Your task to perform on an android device: allow cookies in the chrome app Image 0: 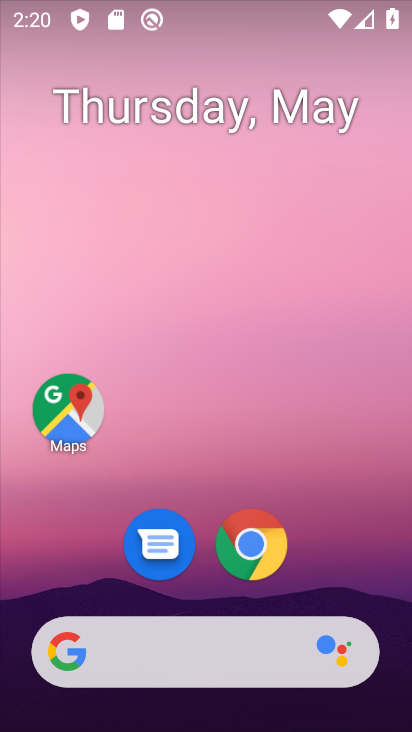
Step 0: click (264, 527)
Your task to perform on an android device: allow cookies in the chrome app Image 1: 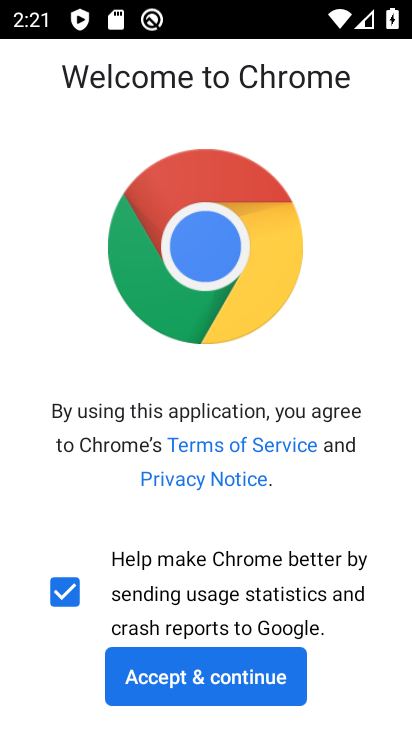
Step 1: click (241, 682)
Your task to perform on an android device: allow cookies in the chrome app Image 2: 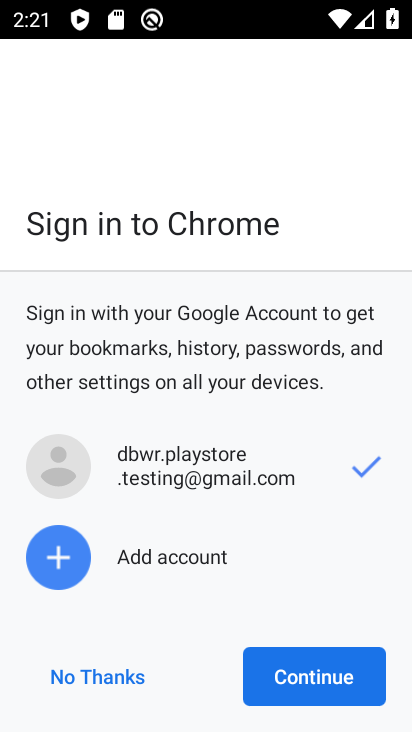
Step 2: click (358, 679)
Your task to perform on an android device: allow cookies in the chrome app Image 3: 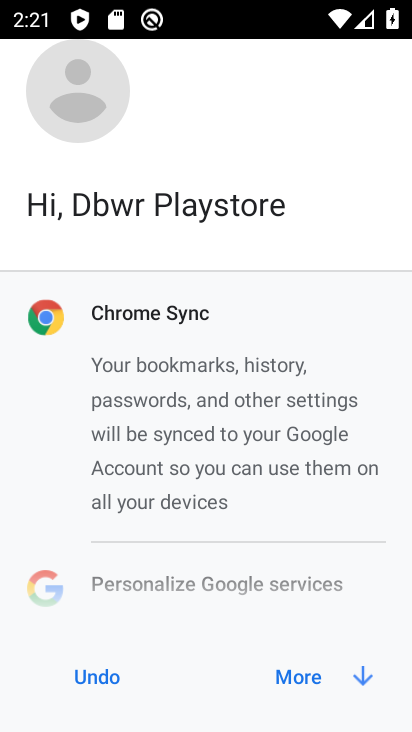
Step 3: click (296, 685)
Your task to perform on an android device: allow cookies in the chrome app Image 4: 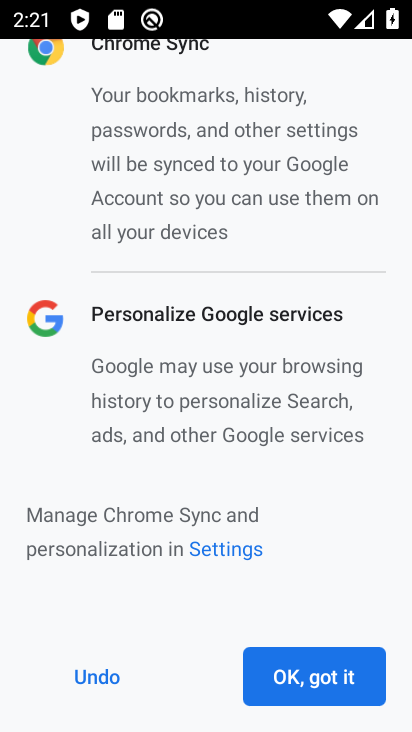
Step 4: click (303, 682)
Your task to perform on an android device: allow cookies in the chrome app Image 5: 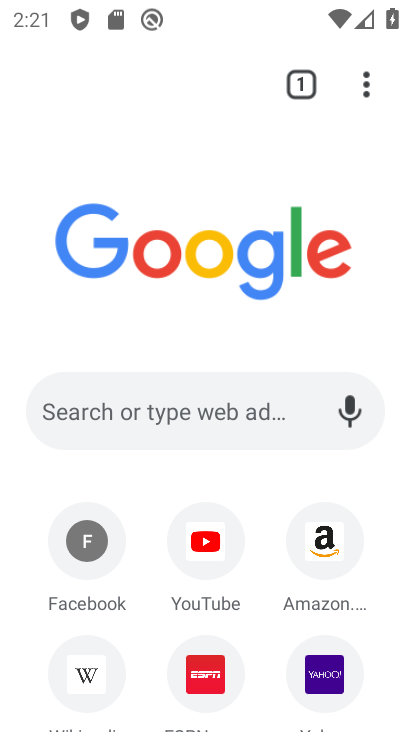
Step 5: click (371, 88)
Your task to perform on an android device: allow cookies in the chrome app Image 6: 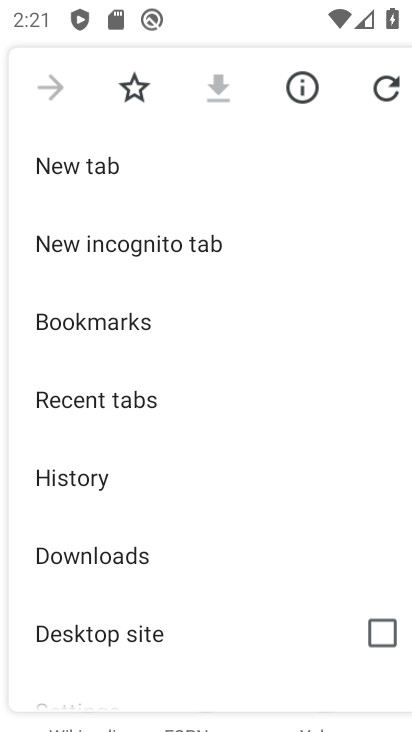
Step 6: drag from (130, 612) to (172, 183)
Your task to perform on an android device: allow cookies in the chrome app Image 7: 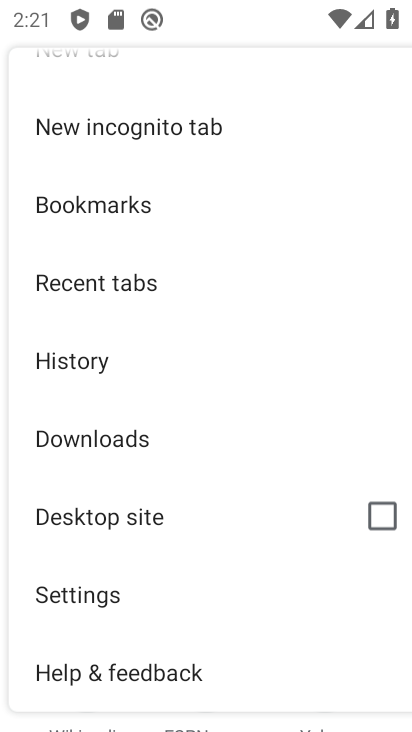
Step 7: click (99, 602)
Your task to perform on an android device: allow cookies in the chrome app Image 8: 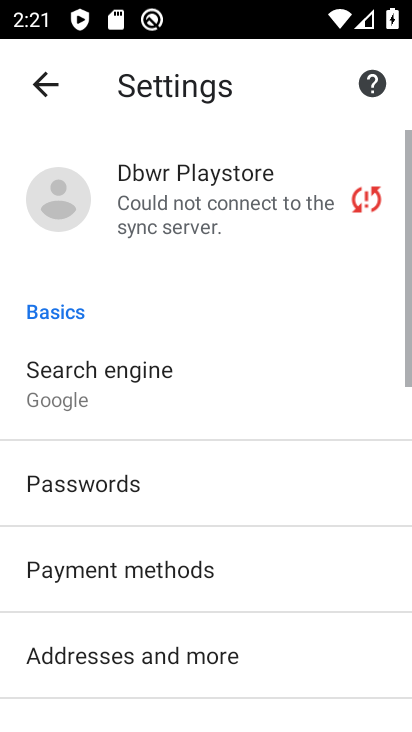
Step 8: drag from (221, 602) to (92, 126)
Your task to perform on an android device: allow cookies in the chrome app Image 9: 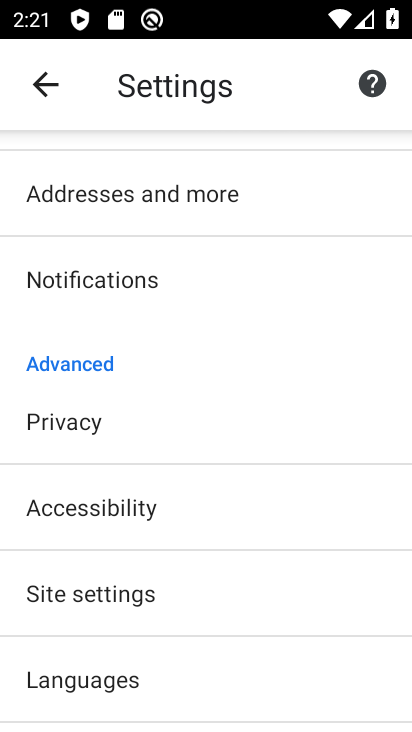
Step 9: click (97, 602)
Your task to perform on an android device: allow cookies in the chrome app Image 10: 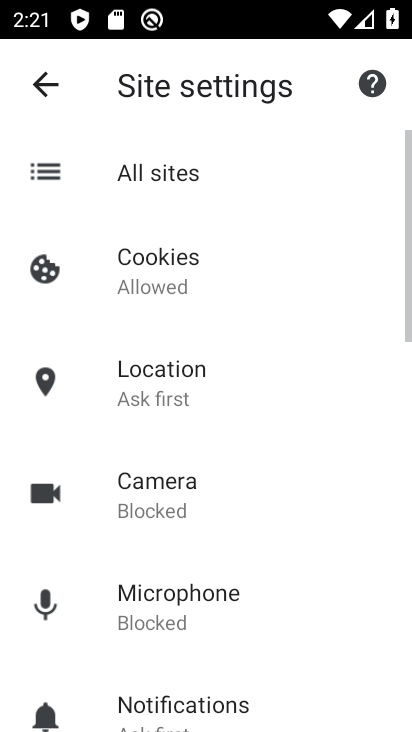
Step 10: click (208, 261)
Your task to perform on an android device: allow cookies in the chrome app Image 11: 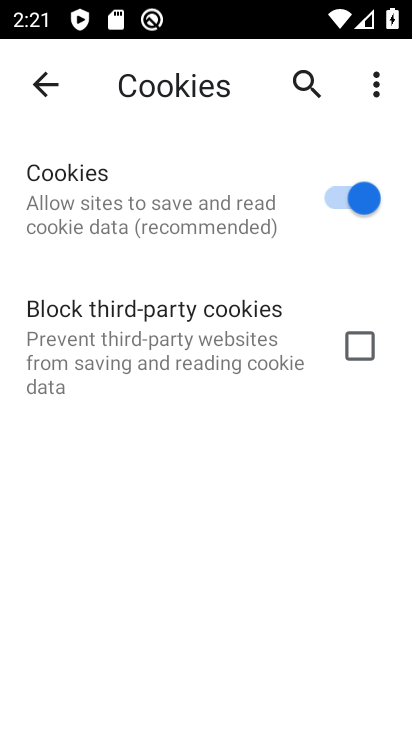
Step 11: task complete